Your task to perform on an android device: Open the web browser Image 0: 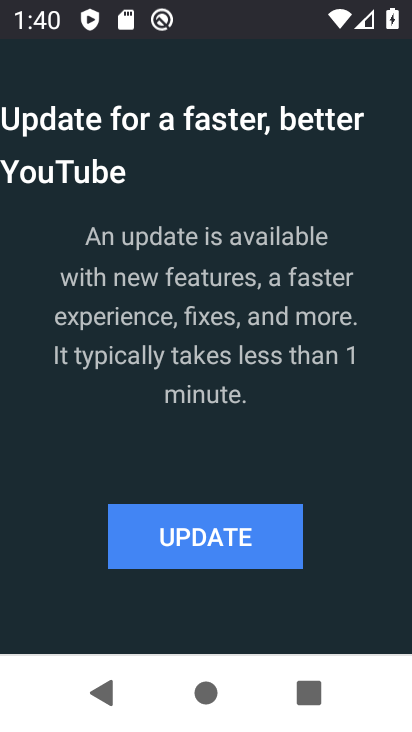
Step 0: click (252, 549)
Your task to perform on an android device: Open the web browser Image 1: 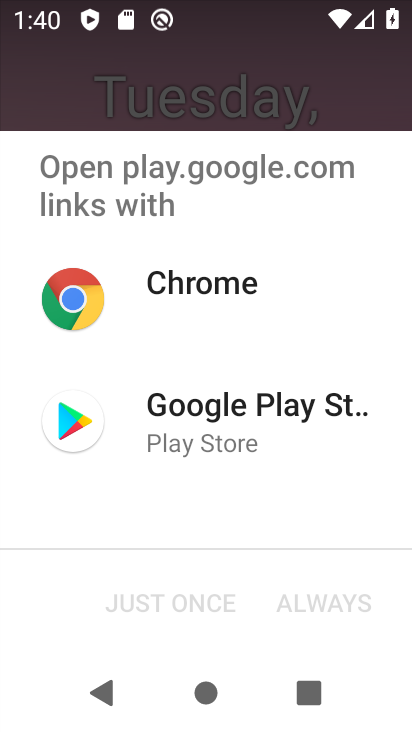
Step 1: click (236, 416)
Your task to perform on an android device: Open the web browser Image 2: 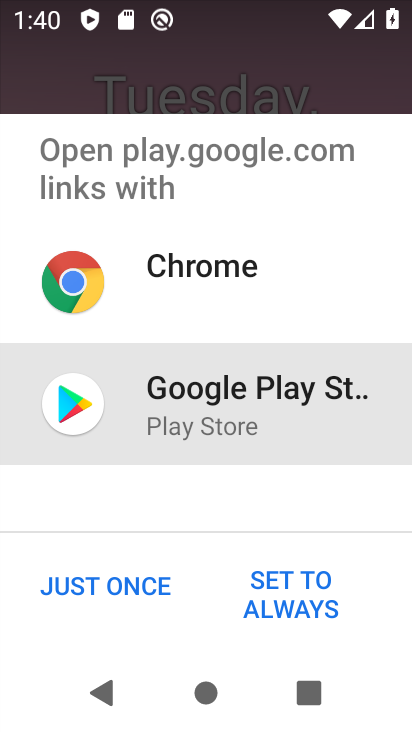
Step 2: click (101, 600)
Your task to perform on an android device: Open the web browser Image 3: 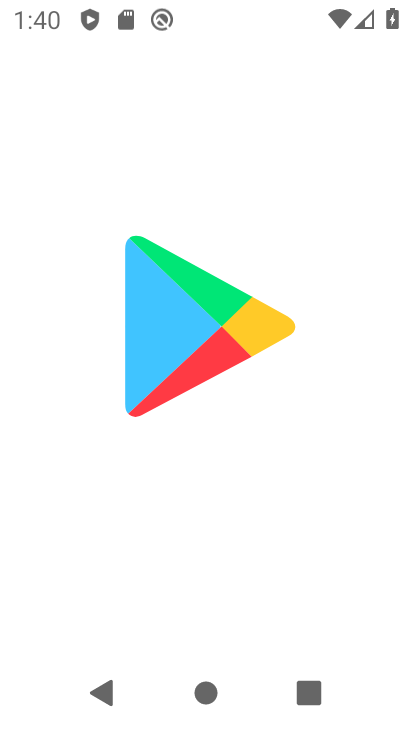
Step 3: task complete